Your task to perform on an android device: change notification settings in the gmail app Image 0: 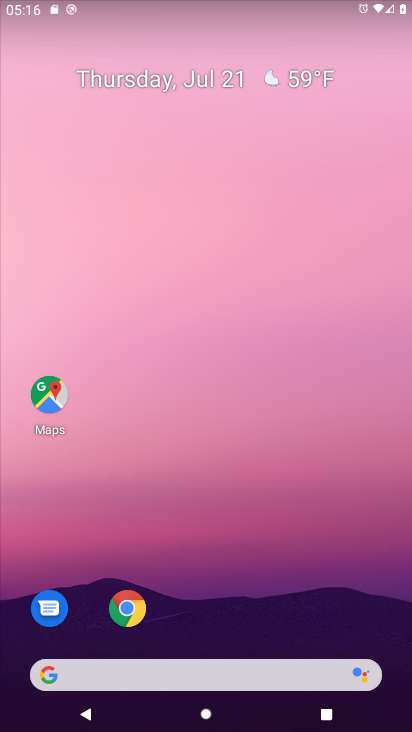
Step 0: drag from (259, 629) to (291, 6)
Your task to perform on an android device: change notification settings in the gmail app Image 1: 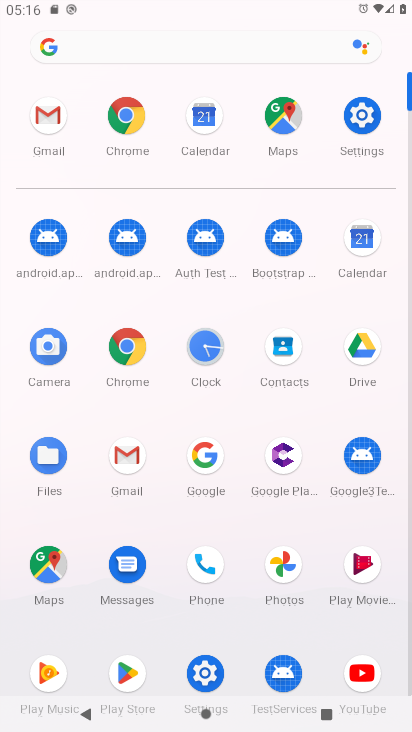
Step 1: click (131, 451)
Your task to perform on an android device: change notification settings in the gmail app Image 2: 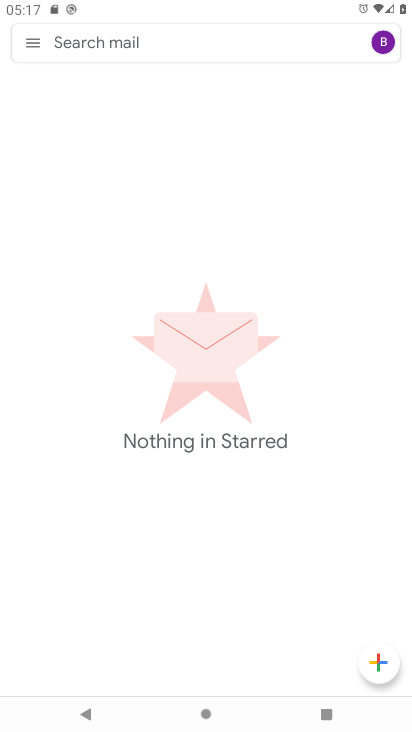
Step 2: click (43, 43)
Your task to perform on an android device: change notification settings in the gmail app Image 3: 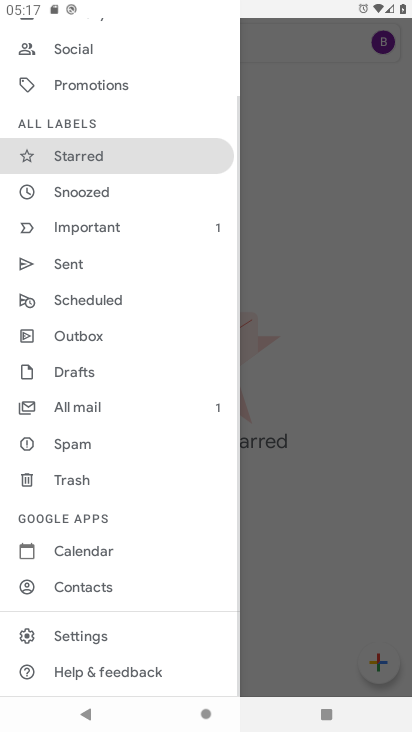
Step 3: click (86, 635)
Your task to perform on an android device: change notification settings in the gmail app Image 4: 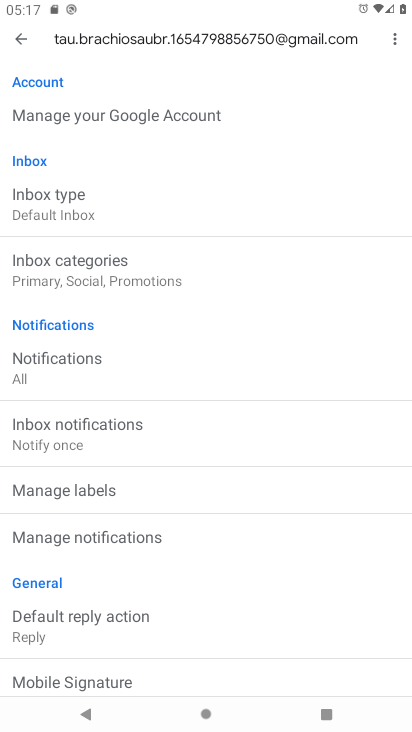
Step 4: click (104, 530)
Your task to perform on an android device: change notification settings in the gmail app Image 5: 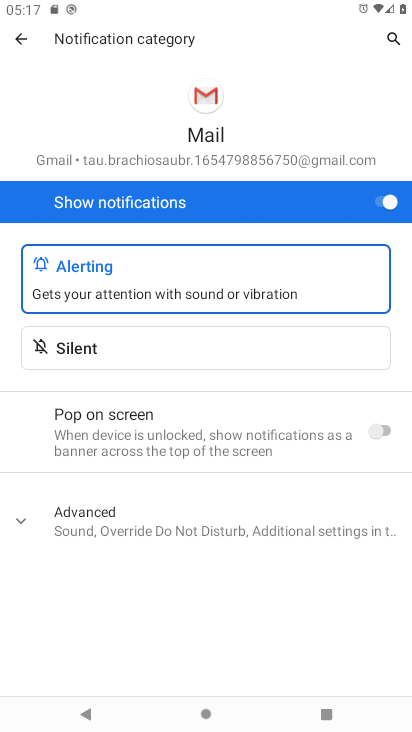
Step 5: click (374, 199)
Your task to perform on an android device: change notification settings in the gmail app Image 6: 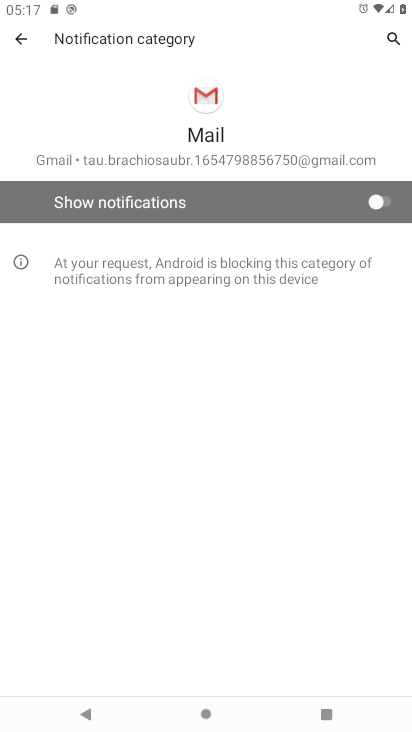
Step 6: task complete